Your task to perform on an android device: open app "Gmail" (install if not already installed) Image 0: 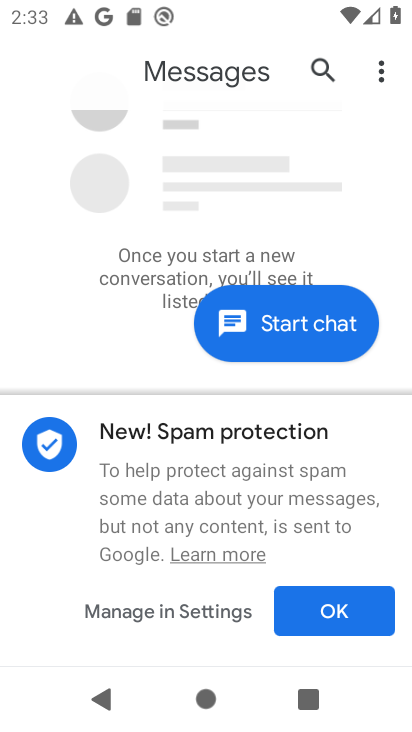
Step 0: press home button
Your task to perform on an android device: open app "Gmail" (install if not already installed) Image 1: 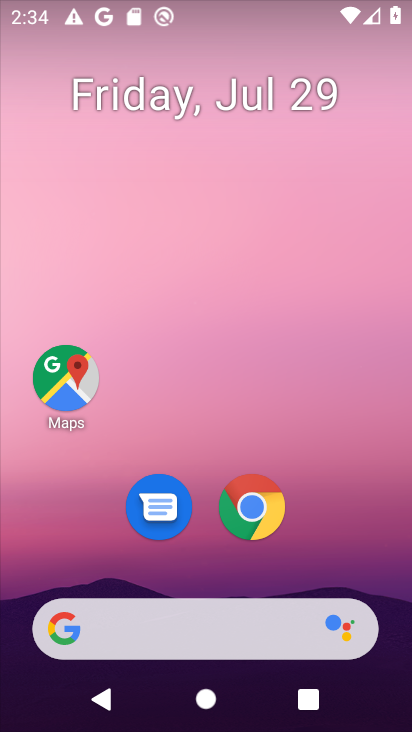
Step 1: drag from (314, 570) to (314, 82)
Your task to perform on an android device: open app "Gmail" (install if not already installed) Image 2: 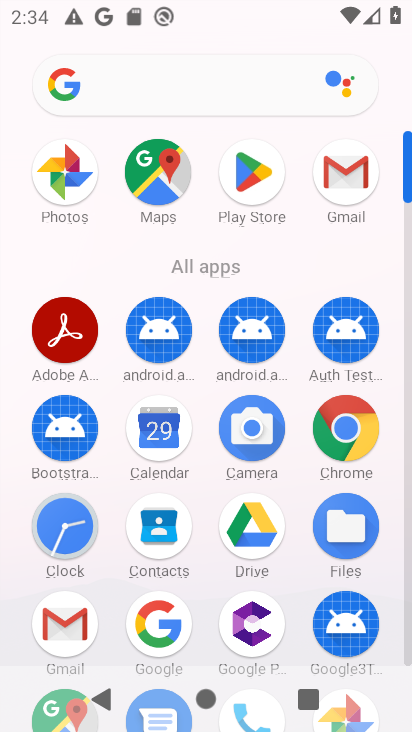
Step 2: click (330, 154)
Your task to perform on an android device: open app "Gmail" (install if not already installed) Image 3: 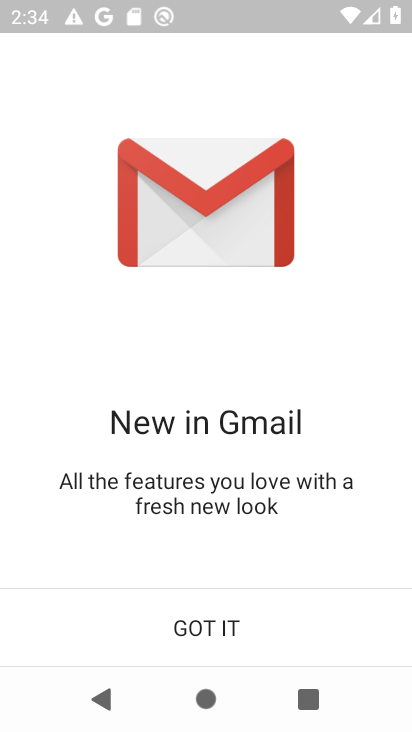
Step 3: click (226, 627)
Your task to perform on an android device: open app "Gmail" (install if not already installed) Image 4: 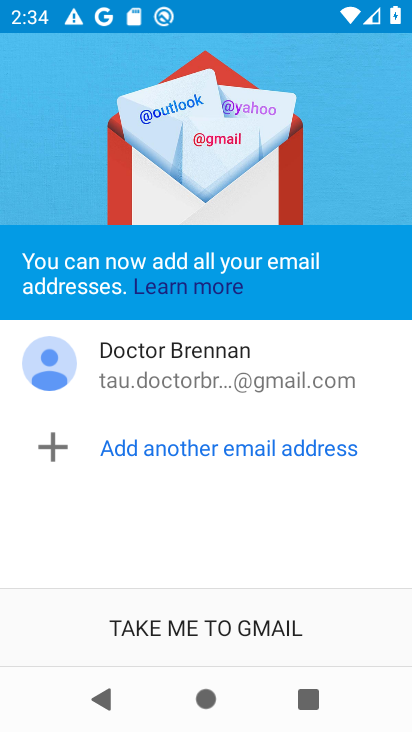
Step 4: click (226, 627)
Your task to perform on an android device: open app "Gmail" (install if not already installed) Image 5: 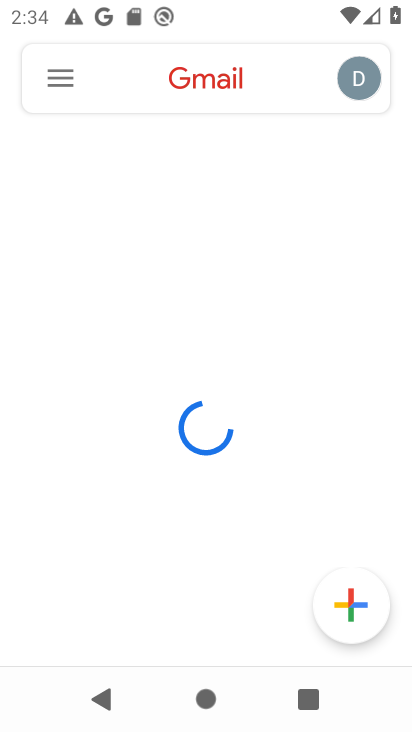
Step 5: task complete